Your task to perform on an android device: read, delete, or share a saved page in the chrome app Image 0: 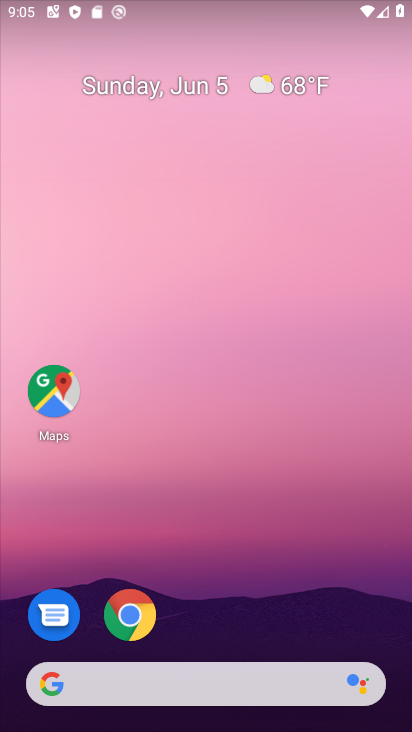
Step 0: click (146, 610)
Your task to perform on an android device: read, delete, or share a saved page in the chrome app Image 1: 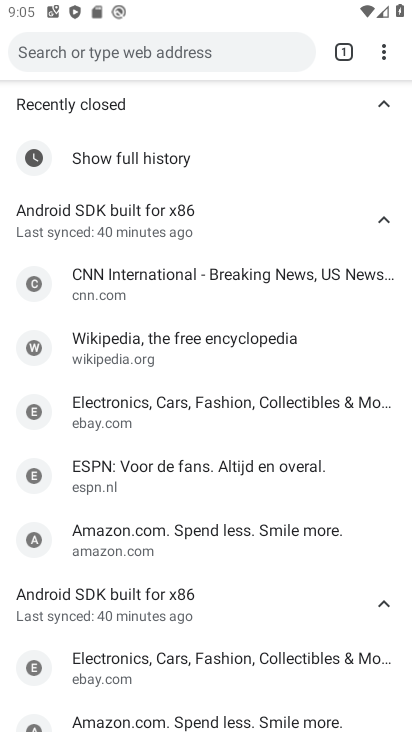
Step 1: click (386, 52)
Your task to perform on an android device: read, delete, or share a saved page in the chrome app Image 2: 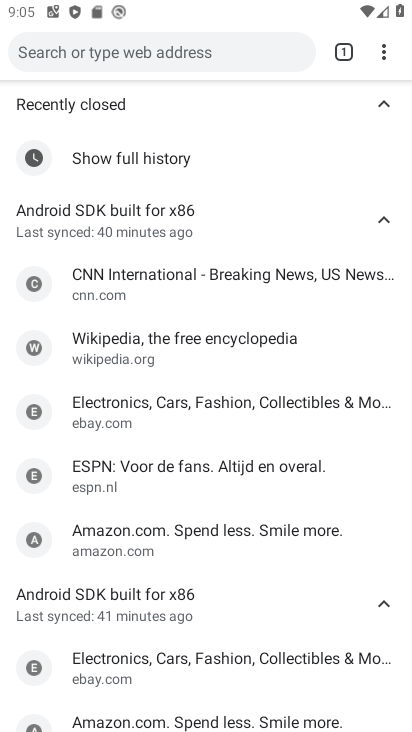
Step 2: click (377, 47)
Your task to perform on an android device: read, delete, or share a saved page in the chrome app Image 3: 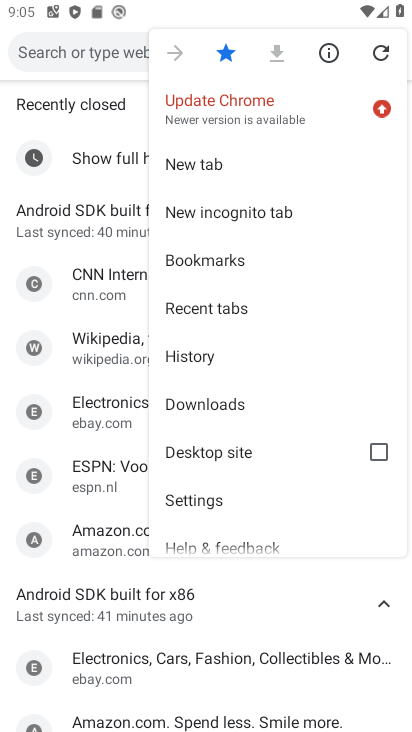
Step 3: click (219, 264)
Your task to perform on an android device: read, delete, or share a saved page in the chrome app Image 4: 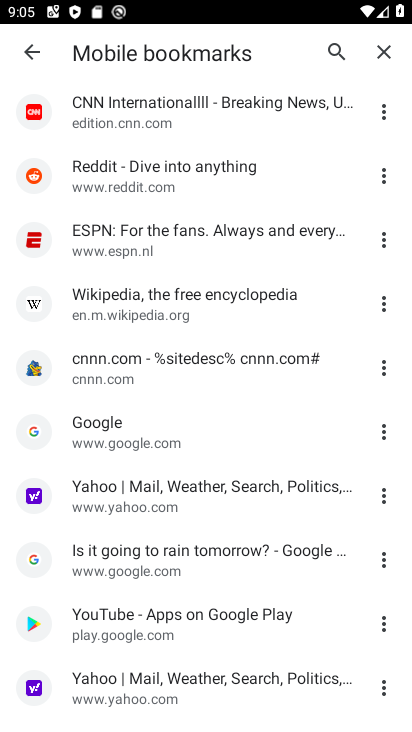
Step 4: click (139, 308)
Your task to perform on an android device: read, delete, or share a saved page in the chrome app Image 5: 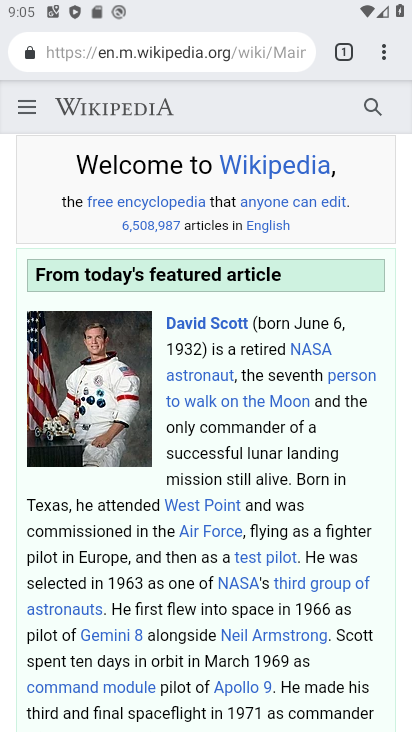
Step 5: drag from (185, 684) to (253, 325)
Your task to perform on an android device: read, delete, or share a saved page in the chrome app Image 6: 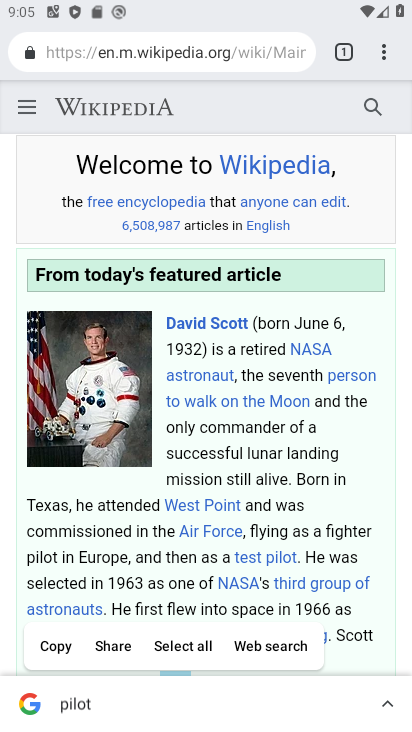
Step 6: click (341, 498)
Your task to perform on an android device: read, delete, or share a saved page in the chrome app Image 7: 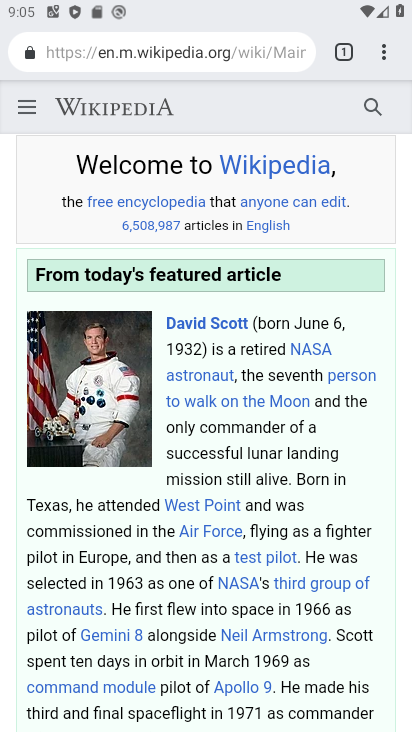
Step 7: task complete